Your task to perform on an android device: turn off smart reply in the gmail app Image 0: 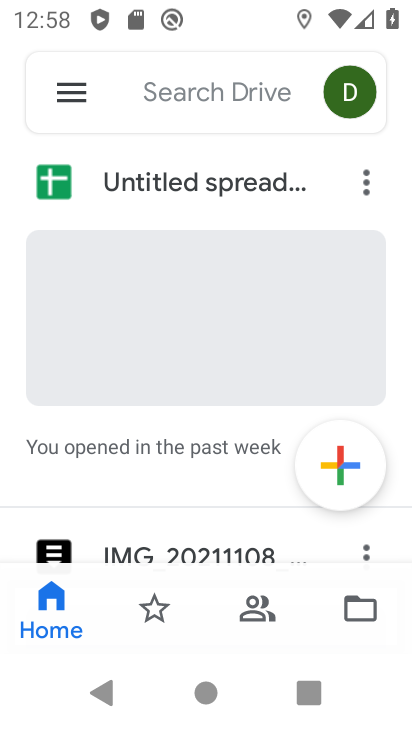
Step 0: press home button
Your task to perform on an android device: turn off smart reply in the gmail app Image 1: 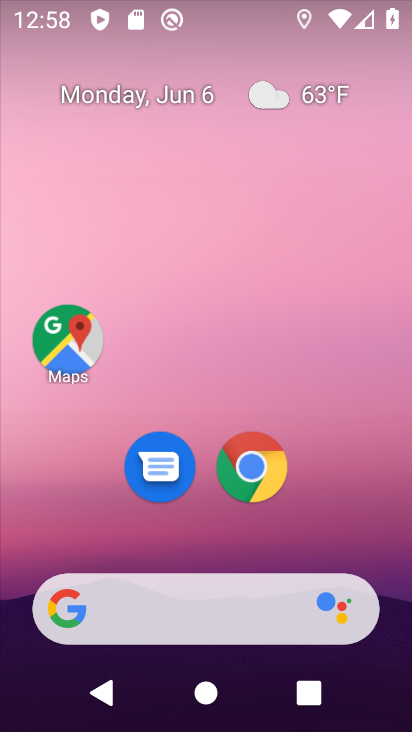
Step 1: drag from (394, 613) to (256, 66)
Your task to perform on an android device: turn off smart reply in the gmail app Image 2: 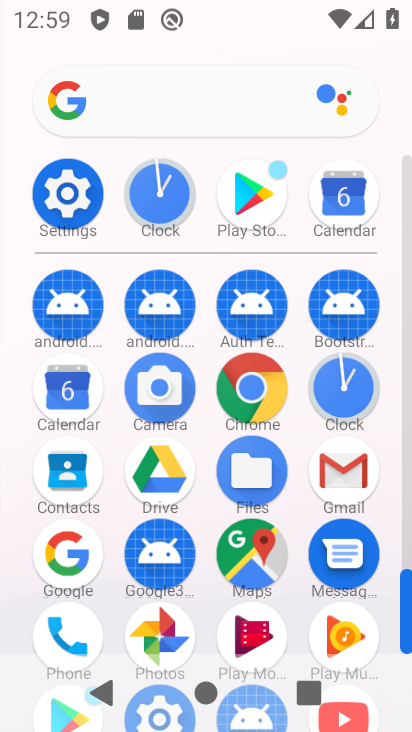
Step 2: click (331, 477)
Your task to perform on an android device: turn off smart reply in the gmail app Image 3: 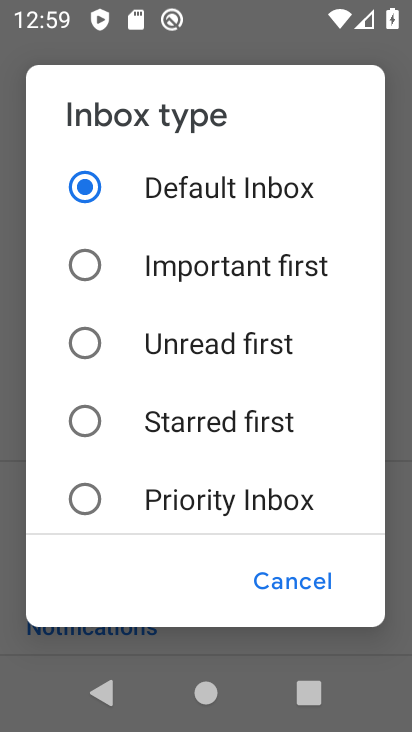
Step 3: press back button
Your task to perform on an android device: turn off smart reply in the gmail app Image 4: 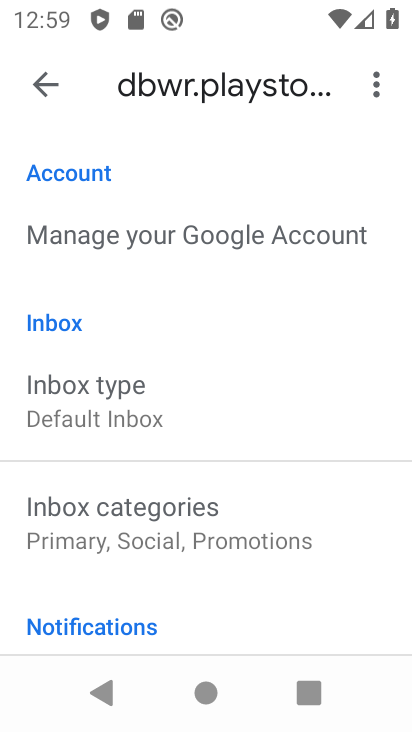
Step 4: drag from (186, 585) to (206, 0)
Your task to perform on an android device: turn off smart reply in the gmail app Image 5: 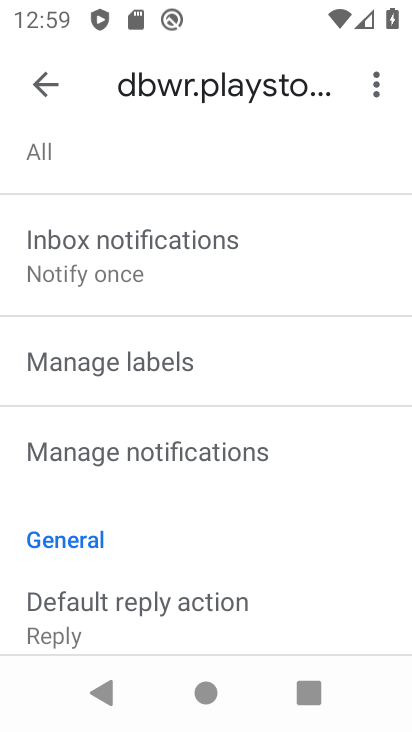
Step 5: click (151, 582)
Your task to perform on an android device: turn off smart reply in the gmail app Image 6: 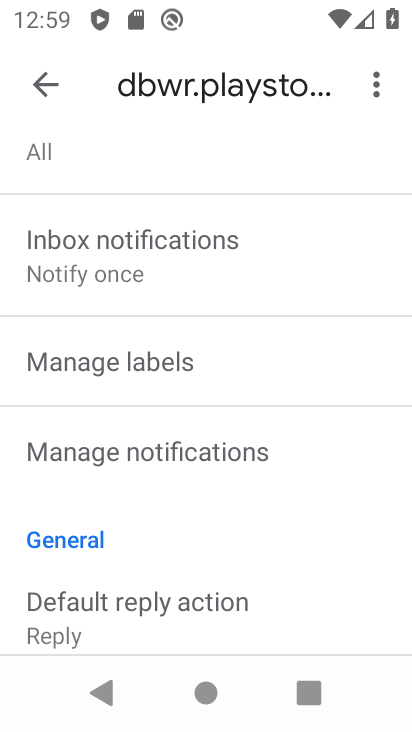
Step 6: drag from (204, 354) to (208, 73)
Your task to perform on an android device: turn off smart reply in the gmail app Image 7: 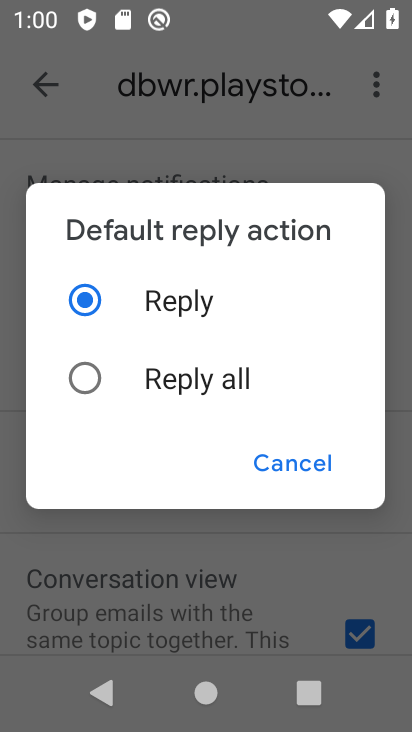
Step 7: click (306, 454)
Your task to perform on an android device: turn off smart reply in the gmail app Image 8: 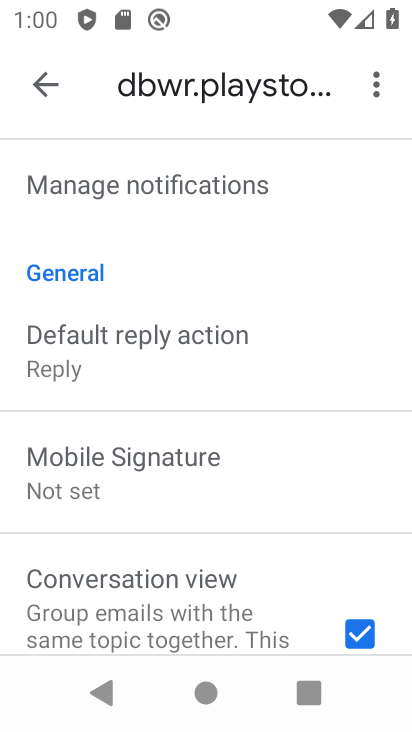
Step 8: drag from (163, 609) to (201, 155)
Your task to perform on an android device: turn off smart reply in the gmail app Image 9: 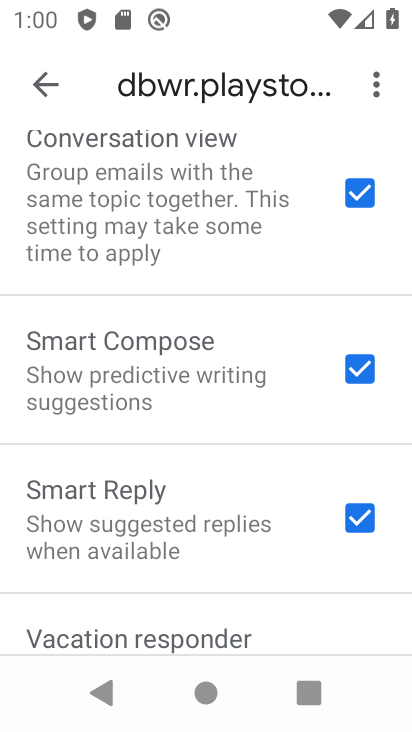
Step 9: click (217, 534)
Your task to perform on an android device: turn off smart reply in the gmail app Image 10: 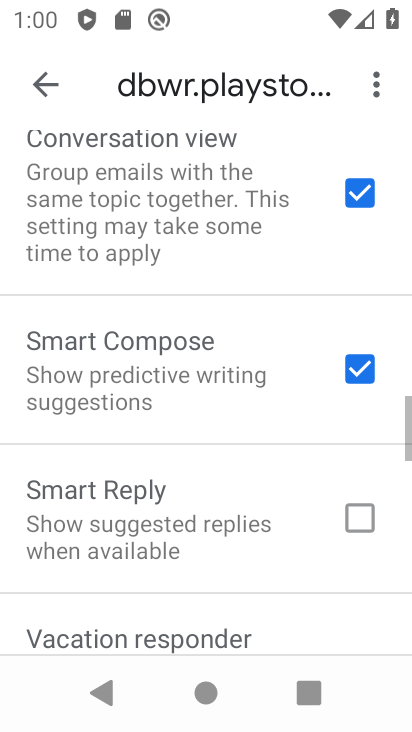
Step 10: task complete